Your task to perform on an android device: Open calendar and show me the second week of next month Image 0: 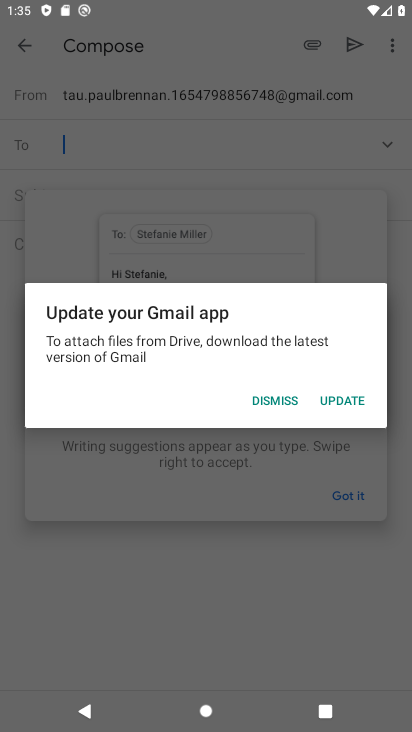
Step 0: press home button
Your task to perform on an android device: Open calendar and show me the second week of next month Image 1: 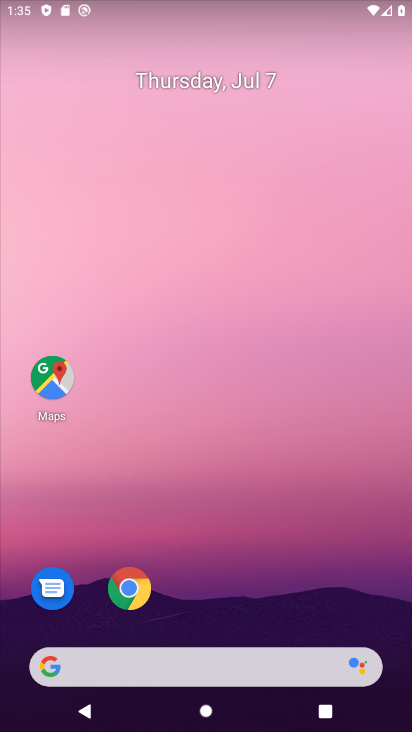
Step 1: drag from (6, 709) to (337, 2)
Your task to perform on an android device: Open calendar and show me the second week of next month Image 2: 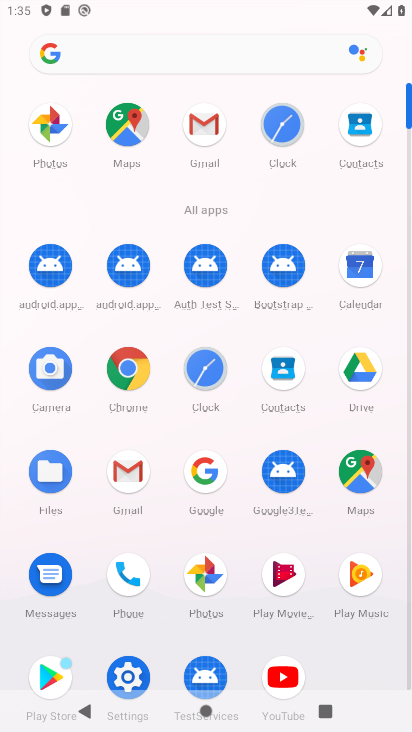
Step 2: click (347, 259)
Your task to perform on an android device: Open calendar and show me the second week of next month Image 3: 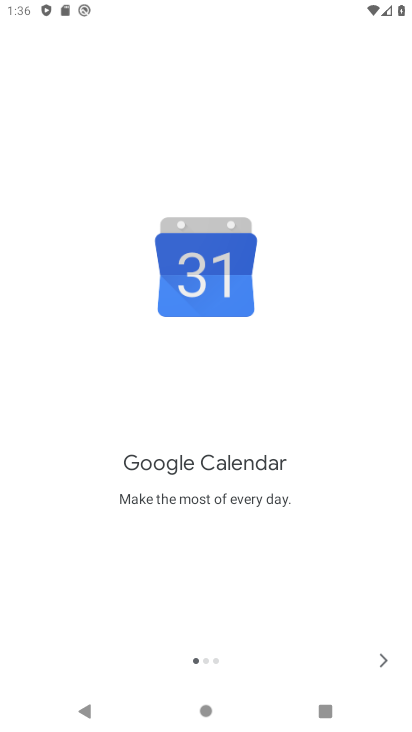
Step 3: click (380, 662)
Your task to perform on an android device: Open calendar and show me the second week of next month Image 4: 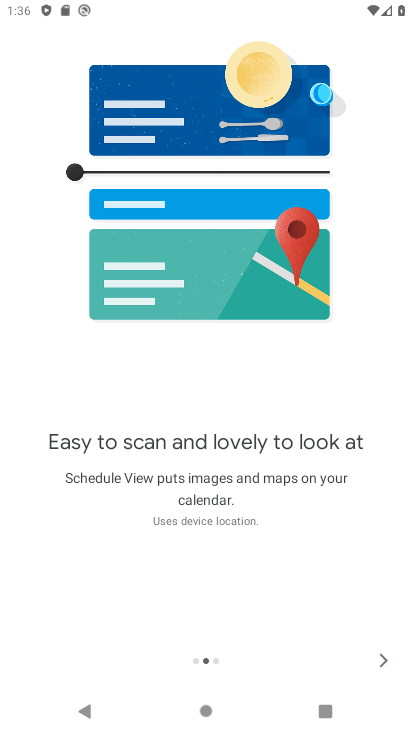
Step 4: click (383, 661)
Your task to perform on an android device: Open calendar and show me the second week of next month Image 5: 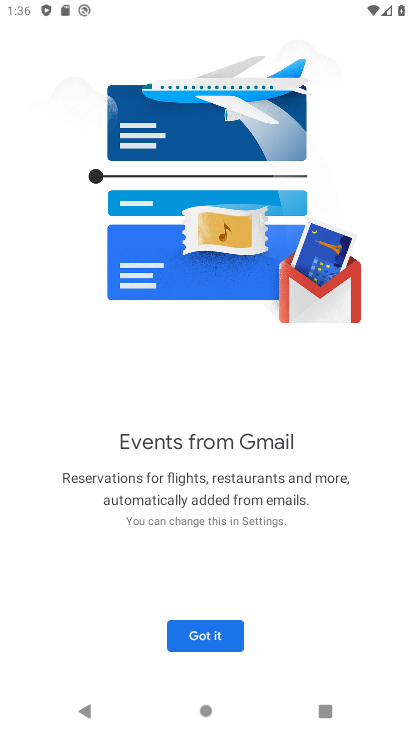
Step 5: click (200, 632)
Your task to perform on an android device: Open calendar and show me the second week of next month Image 6: 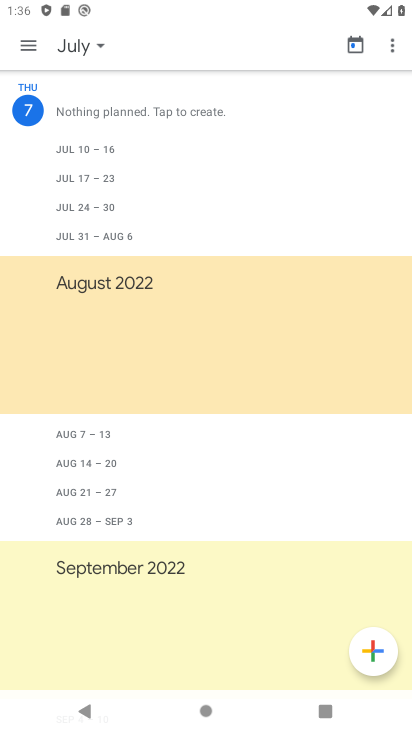
Step 6: click (69, 47)
Your task to perform on an android device: Open calendar and show me the second week of next month Image 7: 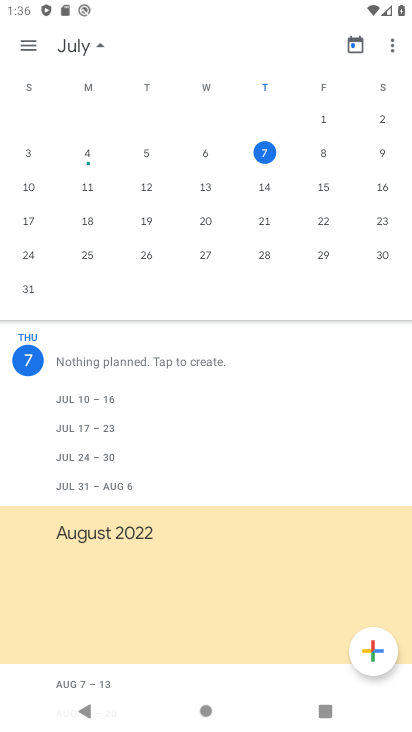
Step 7: drag from (149, 129) to (9, 165)
Your task to perform on an android device: Open calendar and show me the second week of next month Image 8: 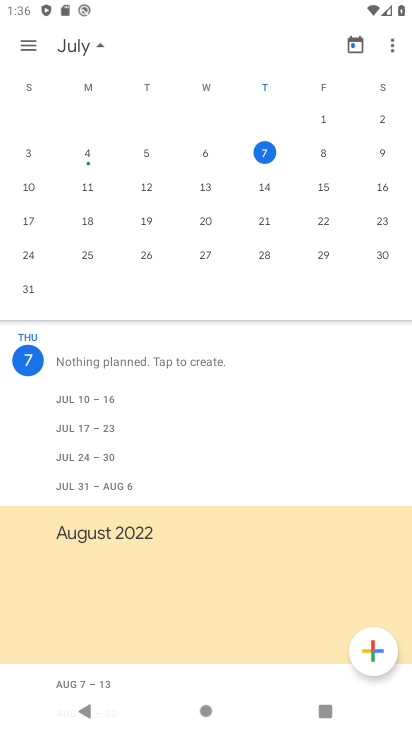
Step 8: drag from (263, 115) to (8, 118)
Your task to perform on an android device: Open calendar and show me the second week of next month Image 9: 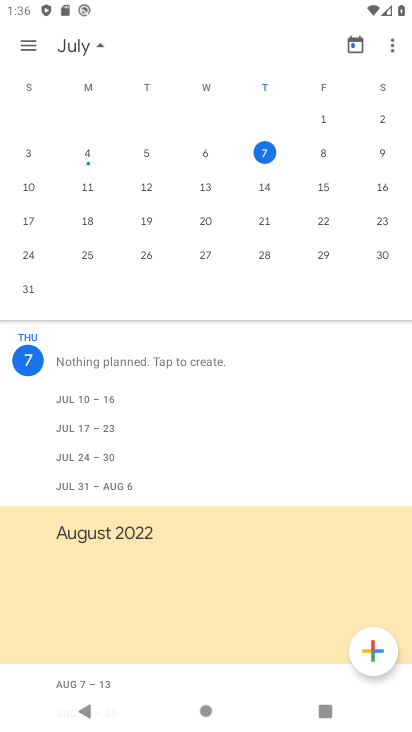
Step 9: drag from (315, 80) to (0, 74)
Your task to perform on an android device: Open calendar and show me the second week of next month Image 10: 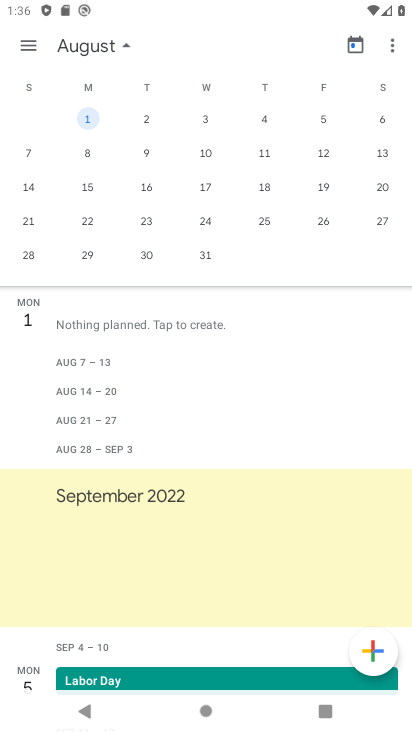
Step 10: click (80, 151)
Your task to perform on an android device: Open calendar and show me the second week of next month Image 11: 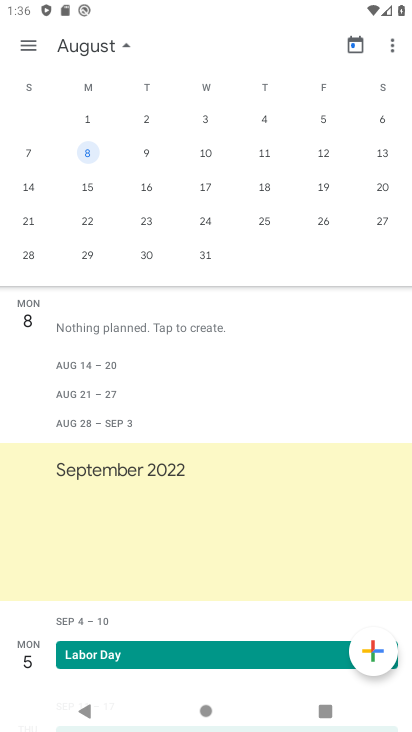
Step 11: task complete